Your task to perform on an android device: change the clock display to digital Image 0: 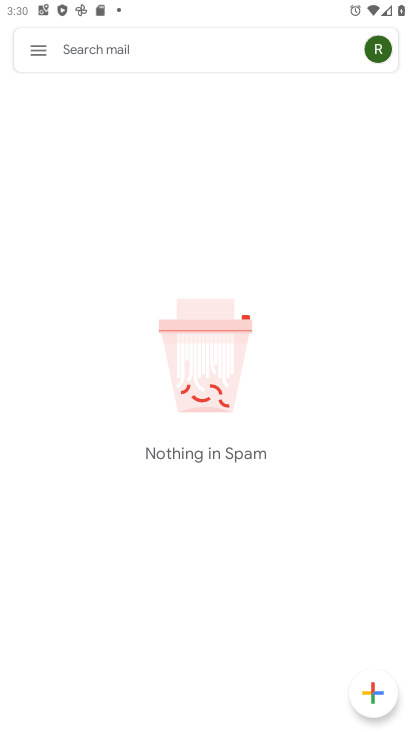
Step 0: task complete